Your task to perform on an android device: turn on bluetooth scan Image 0: 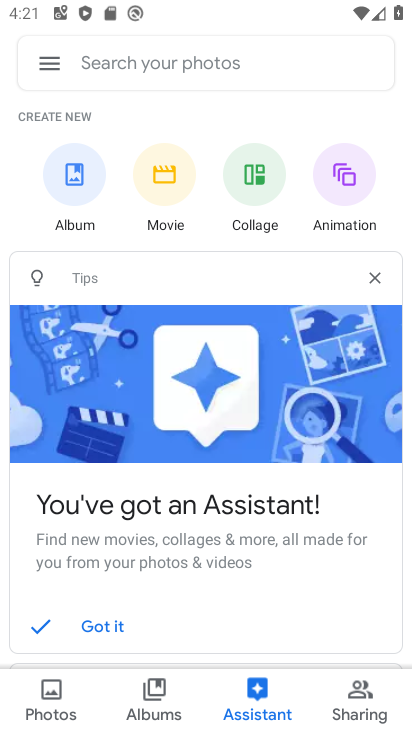
Step 0: press home button
Your task to perform on an android device: turn on bluetooth scan Image 1: 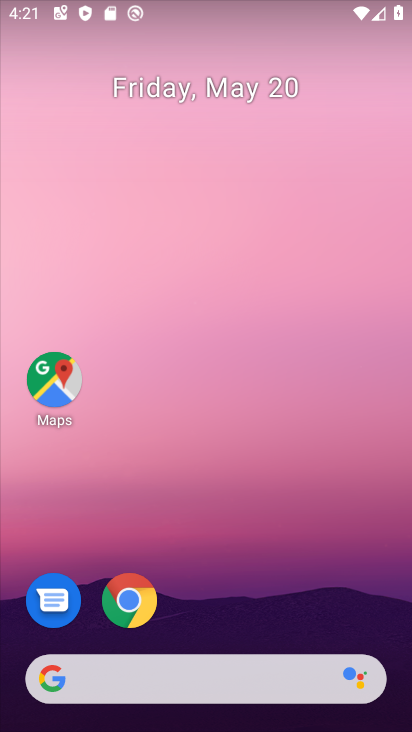
Step 1: drag from (226, 582) to (293, 41)
Your task to perform on an android device: turn on bluetooth scan Image 2: 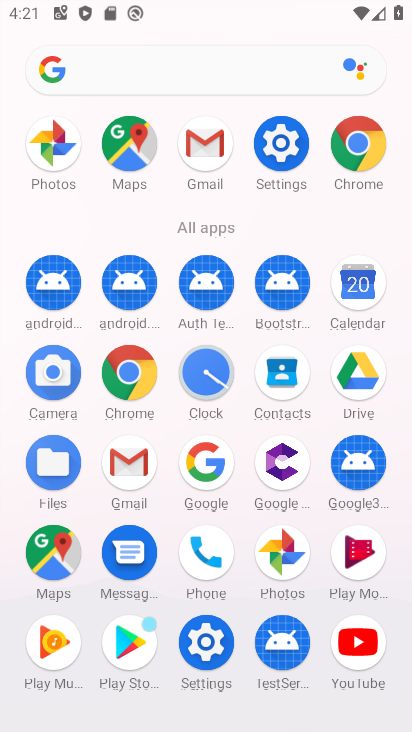
Step 2: click (274, 158)
Your task to perform on an android device: turn on bluetooth scan Image 3: 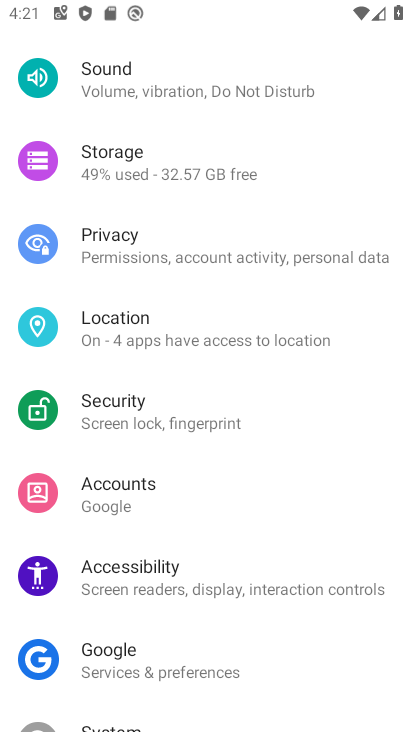
Step 3: click (256, 329)
Your task to perform on an android device: turn on bluetooth scan Image 4: 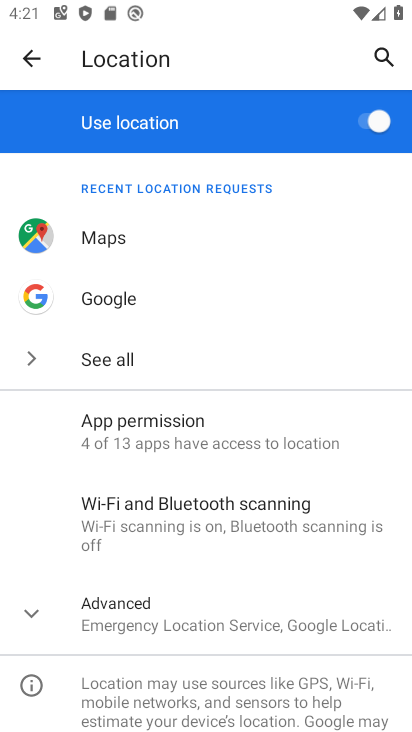
Step 4: click (269, 502)
Your task to perform on an android device: turn on bluetooth scan Image 5: 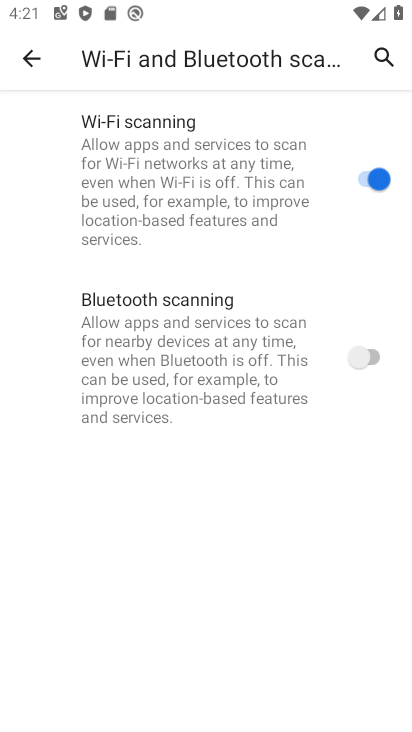
Step 5: click (370, 355)
Your task to perform on an android device: turn on bluetooth scan Image 6: 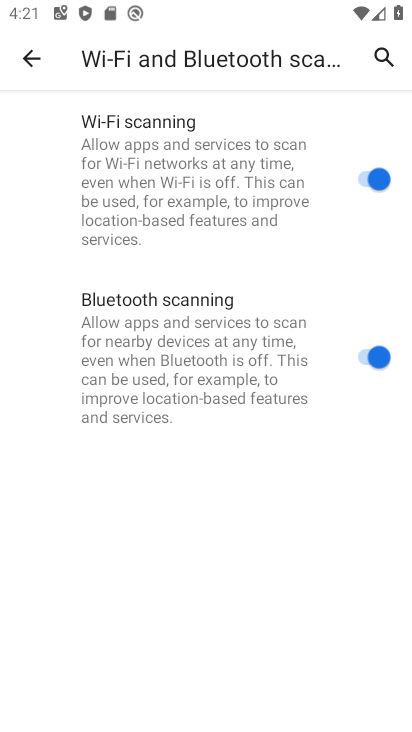
Step 6: task complete